Your task to perform on an android device: set the timer Image 0: 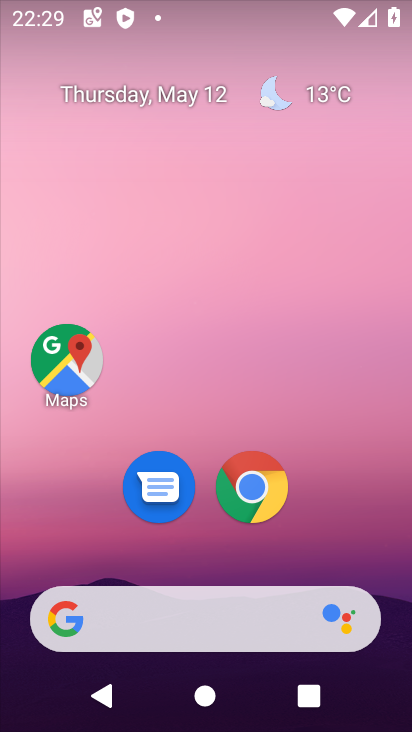
Step 0: drag from (180, 543) to (216, 289)
Your task to perform on an android device: set the timer Image 1: 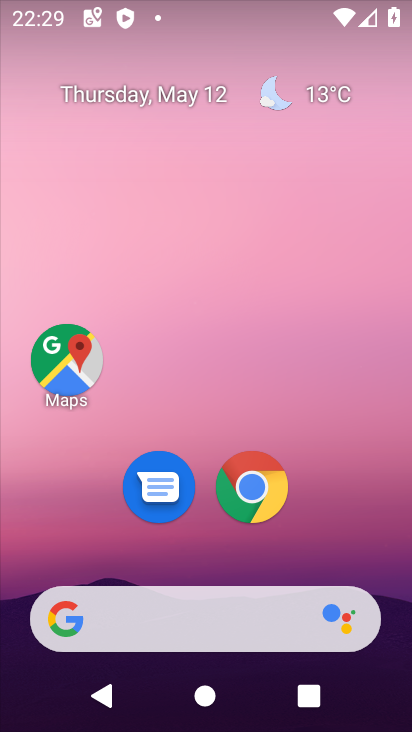
Step 1: drag from (222, 569) to (351, 15)
Your task to perform on an android device: set the timer Image 2: 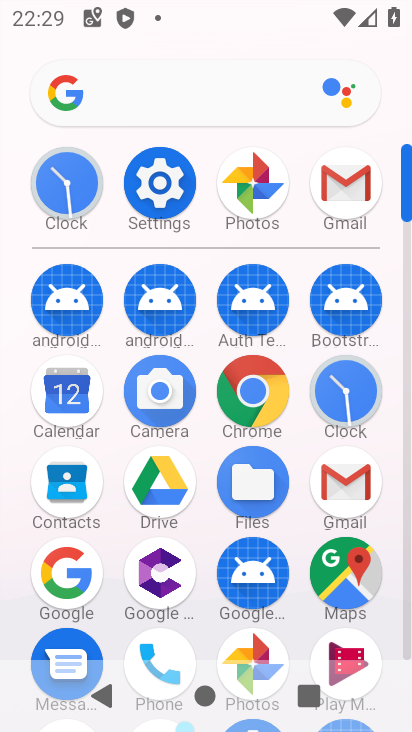
Step 2: click (328, 404)
Your task to perform on an android device: set the timer Image 3: 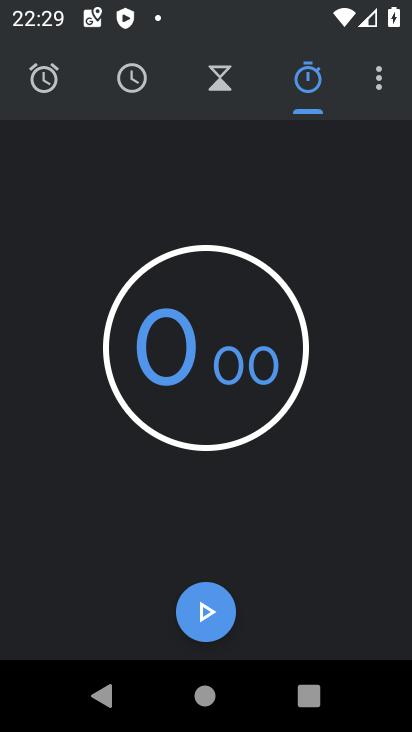
Step 3: click (224, 72)
Your task to perform on an android device: set the timer Image 4: 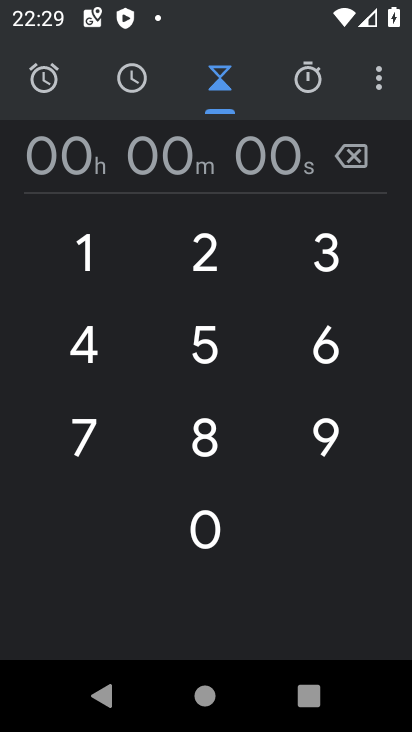
Step 4: click (184, 348)
Your task to perform on an android device: set the timer Image 5: 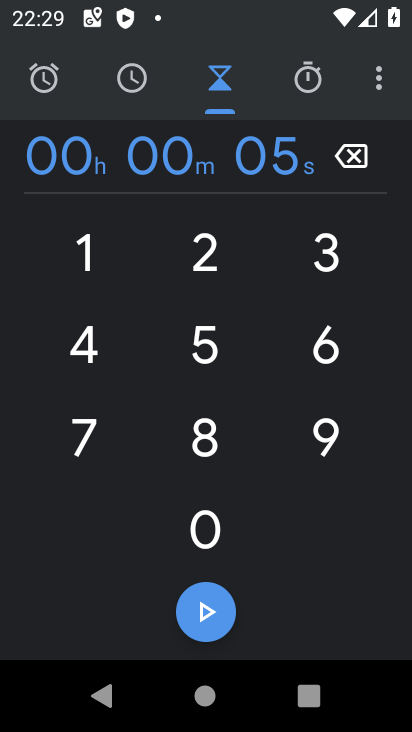
Step 5: click (203, 609)
Your task to perform on an android device: set the timer Image 6: 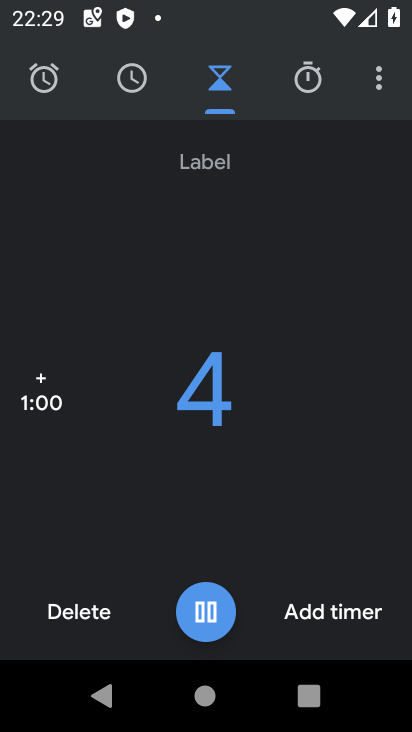
Step 6: task complete